Your task to perform on an android device: clear all cookies in the chrome app Image 0: 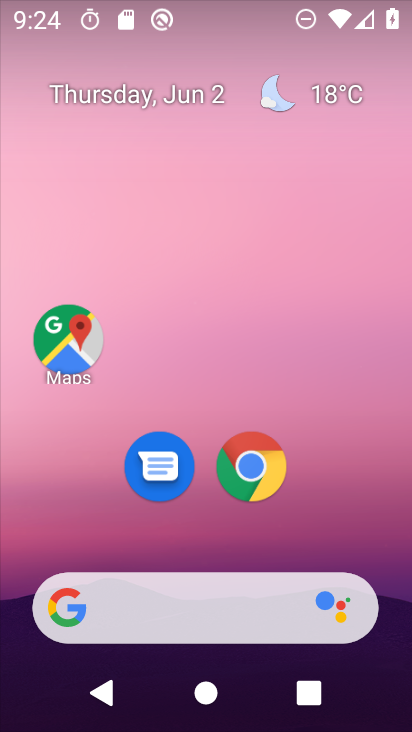
Step 0: press home button
Your task to perform on an android device: clear all cookies in the chrome app Image 1: 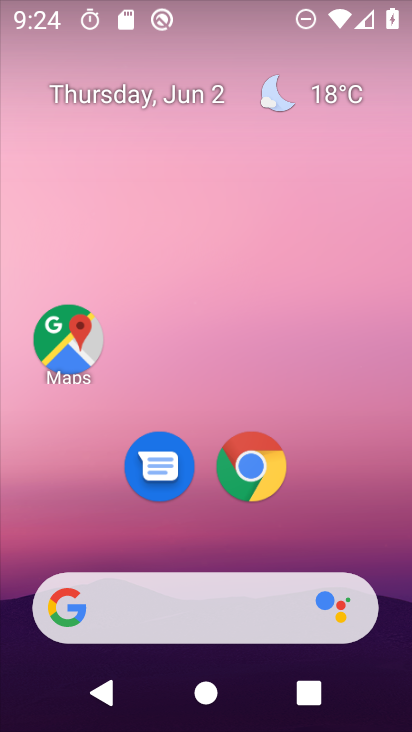
Step 1: click (399, 418)
Your task to perform on an android device: clear all cookies in the chrome app Image 2: 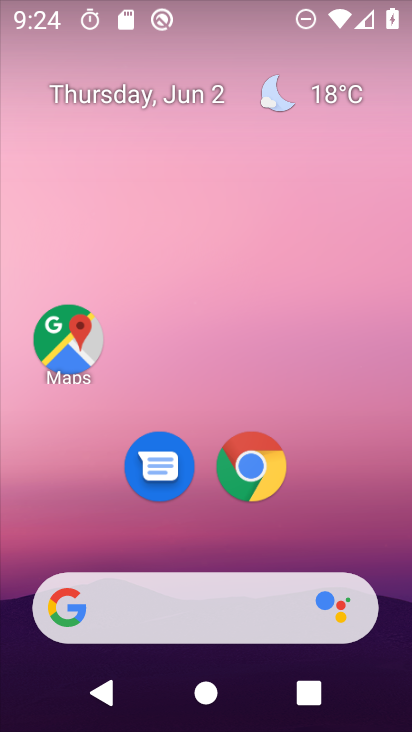
Step 2: click (243, 477)
Your task to perform on an android device: clear all cookies in the chrome app Image 3: 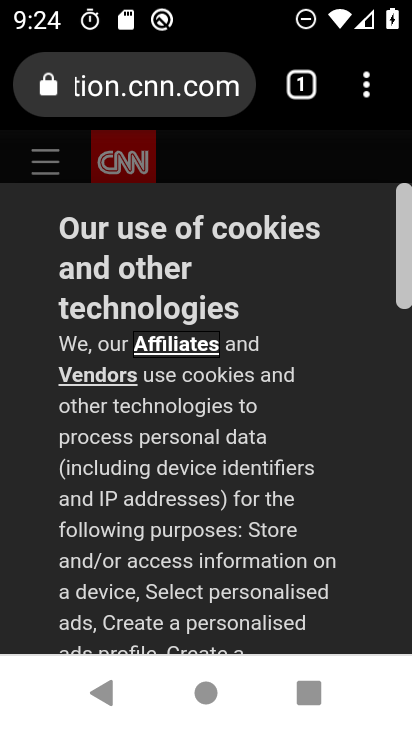
Step 3: click (373, 79)
Your task to perform on an android device: clear all cookies in the chrome app Image 4: 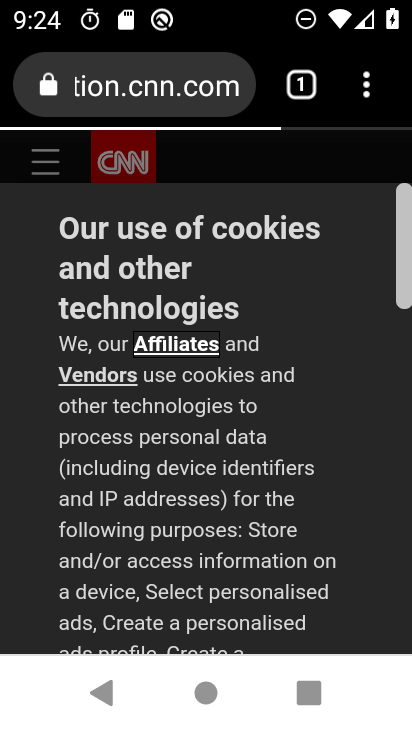
Step 4: drag from (371, 80) to (251, 513)
Your task to perform on an android device: clear all cookies in the chrome app Image 5: 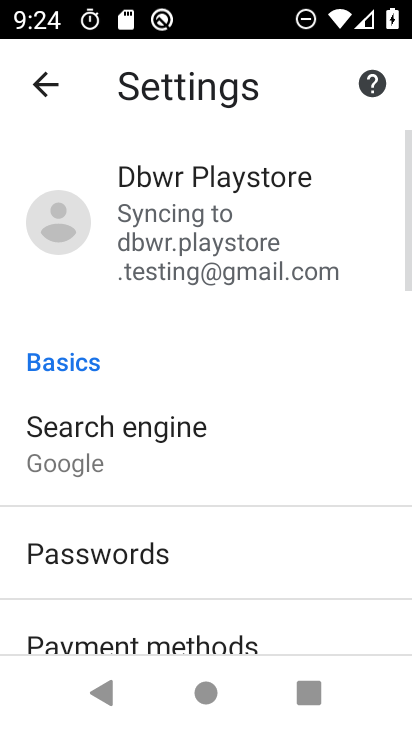
Step 5: drag from (289, 583) to (336, 51)
Your task to perform on an android device: clear all cookies in the chrome app Image 6: 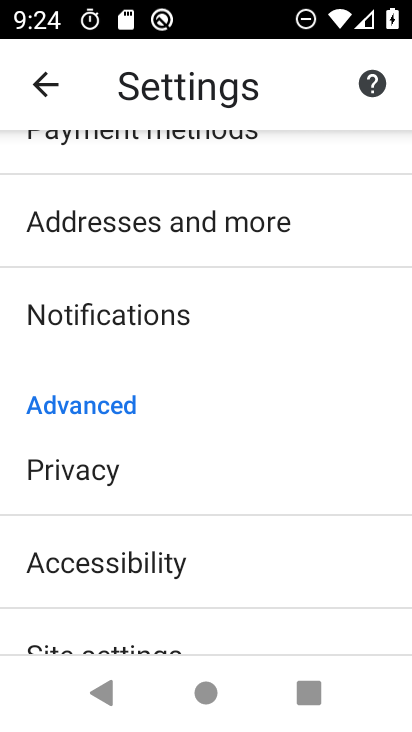
Step 6: click (70, 465)
Your task to perform on an android device: clear all cookies in the chrome app Image 7: 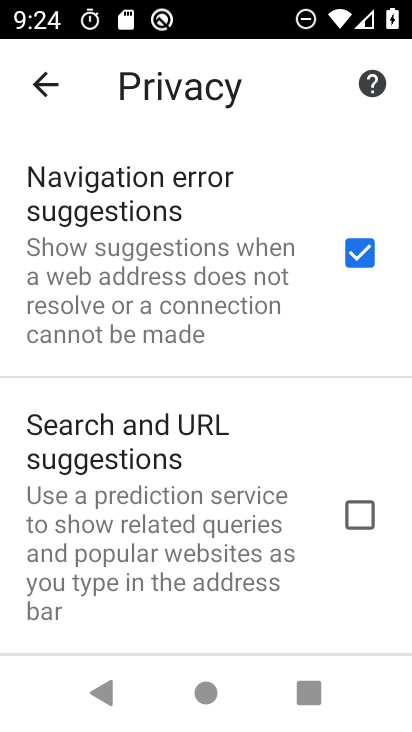
Step 7: drag from (304, 609) to (361, 10)
Your task to perform on an android device: clear all cookies in the chrome app Image 8: 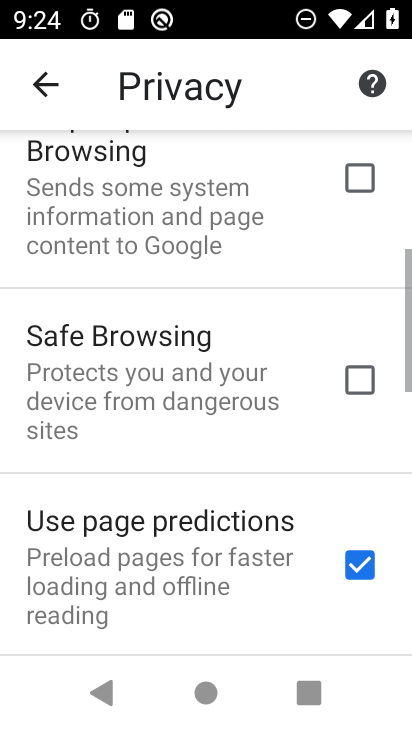
Step 8: drag from (310, 624) to (357, 2)
Your task to perform on an android device: clear all cookies in the chrome app Image 9: 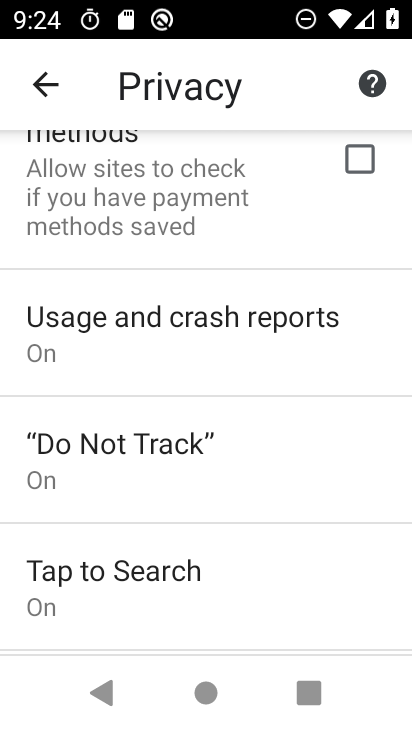
Step 9: drag from (285, 593) to (344, 170)
Your task to perform on an android device: clear all cookies in the chrome app Image 10: 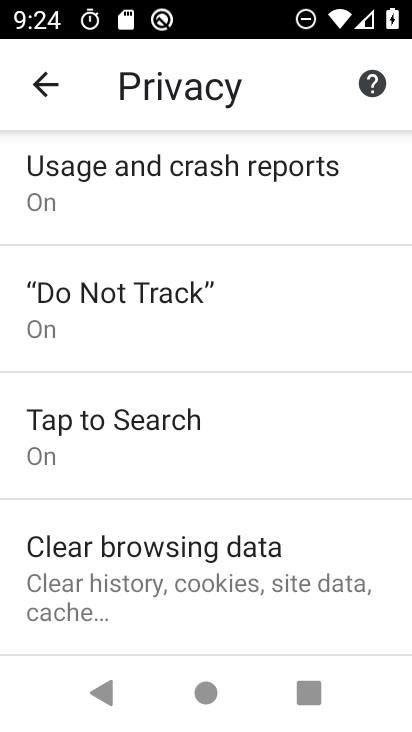
Step 10: click (158, 560)
Your task to perform on an android device: clear all cookies in the chrome app Image 11: 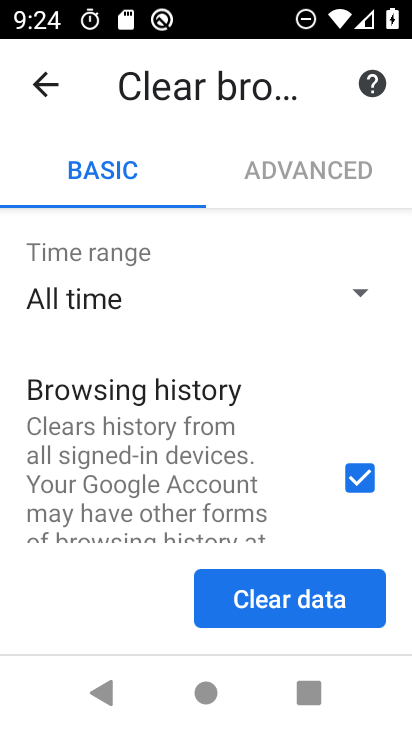
Step 11: click (353, 483)
Your task to perform on an android device: clear all cookies in the chrome app Image 12: 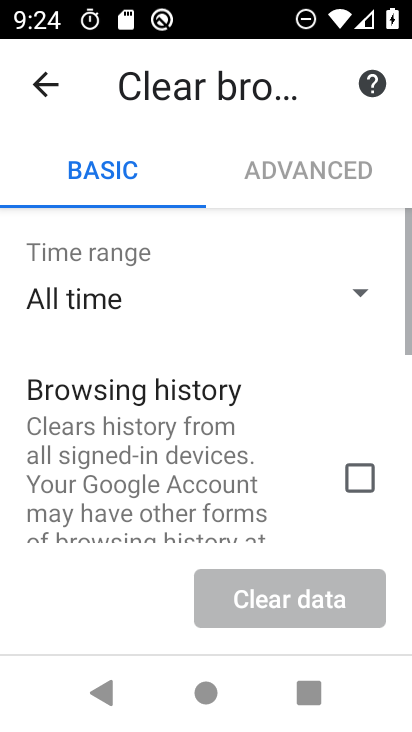
Step 12: drag from (309, 513) to (347, 144)
Your task to perform on an android device: clear all cookies in the chrome app Image 13: 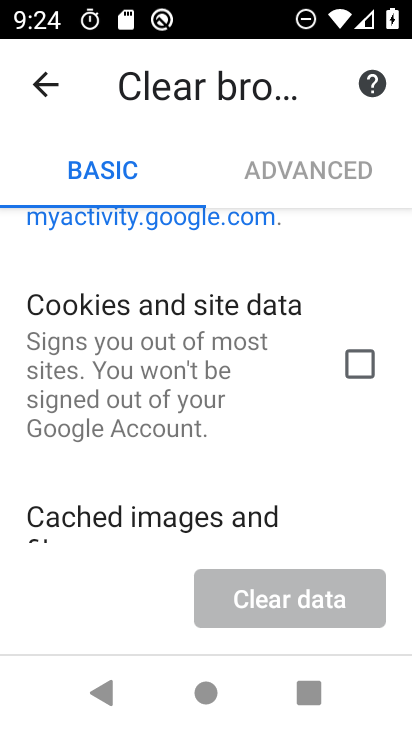
Step 13: click (356, 377)
Your task to perform on an android device: clear all cookies in the chrome app Image 14: 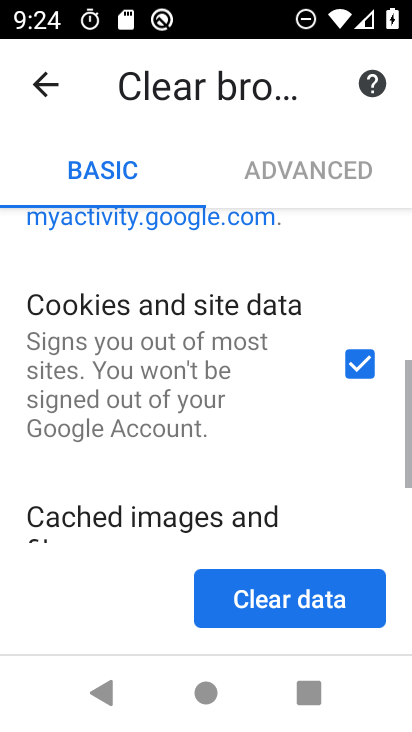
Step 14: drag from (306, 434) to (335, 125)
Your task to perform on an android device: clear all cookies in the chrome app Image 15: 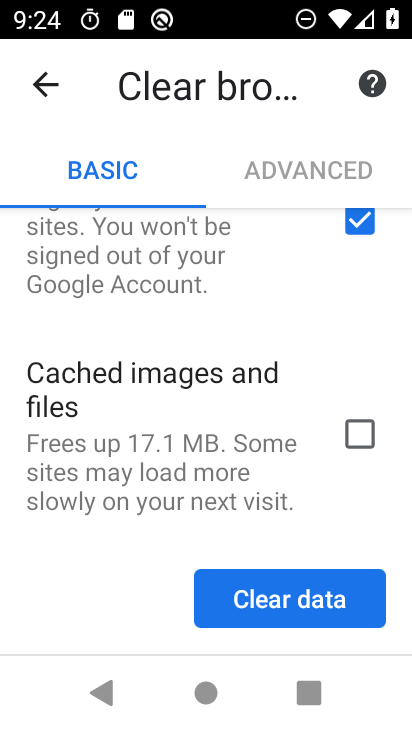
Step 15: click (323, 592)
Your task to perform on an android device: clear all cookies in the chrome app Image 16: 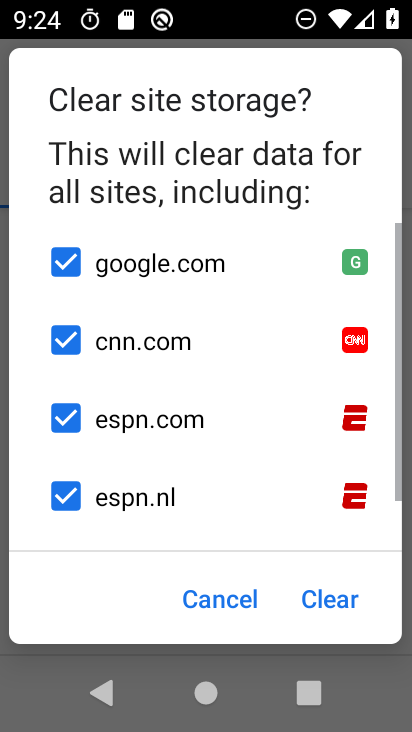
Step 16: click (319, 599)
Your task to perform on an android device: clear all cookies in the chrome app Image 17: 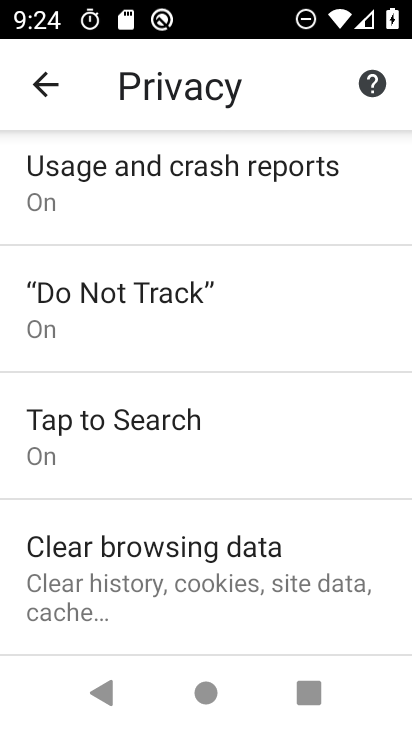
Step 17: task complete